Your task to perform on an android device: Open location settings Image 0: 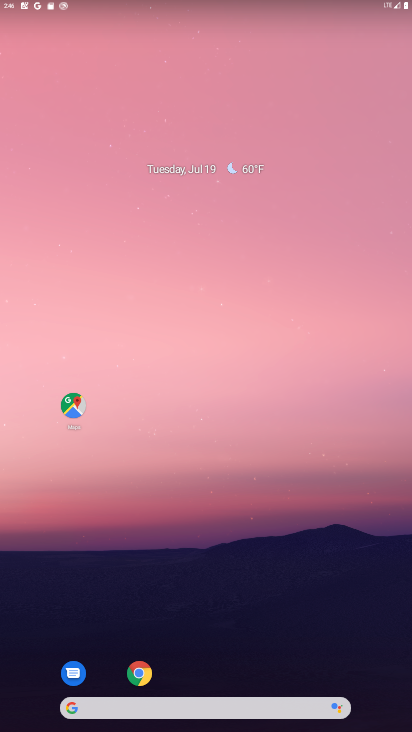
Step 0: drag from (157, 711) to (254, 172)
Your task to perform on an android device: Open location settings Image 1: 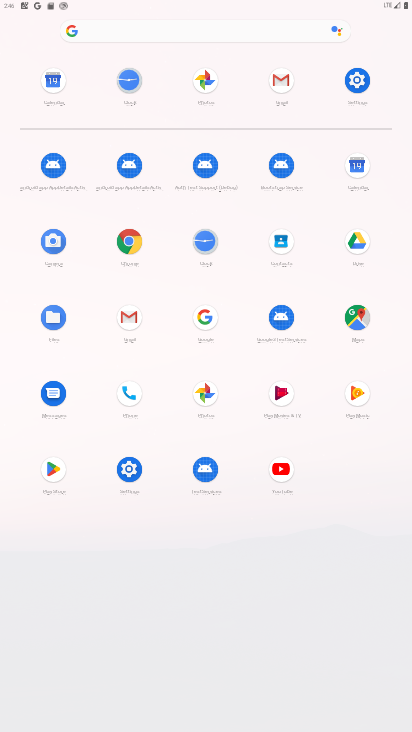
Step 1: click (363, 83)
Your task to perform on an android device: Open location settings Image 2: 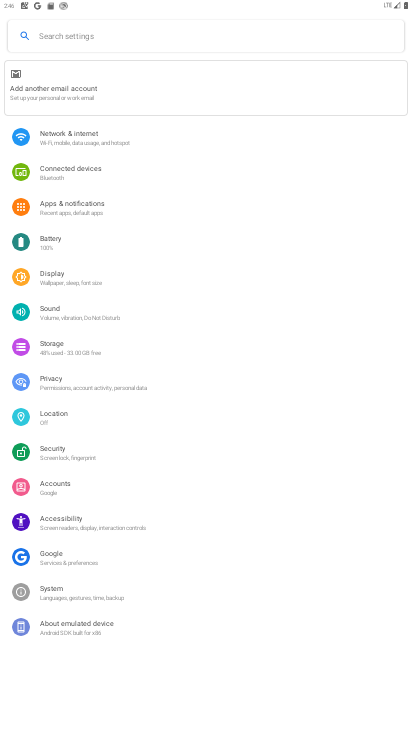
Step 2: click (70, 419)
Your task to perform on an android device: Open location settings Image 3: 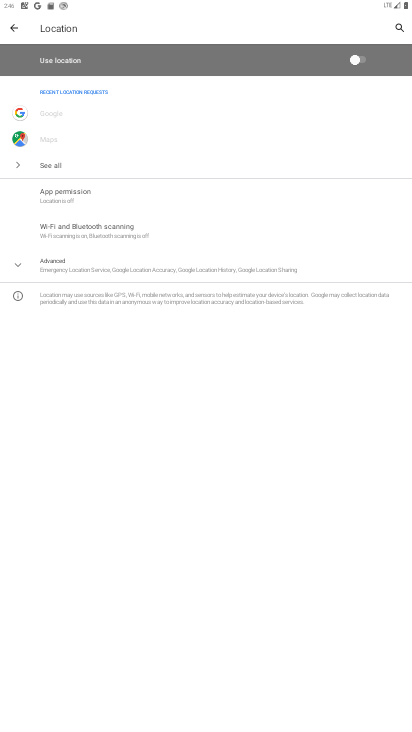
Step 3: task complete